Your task to perform on an android device: Is it going to rain today? Image 0: 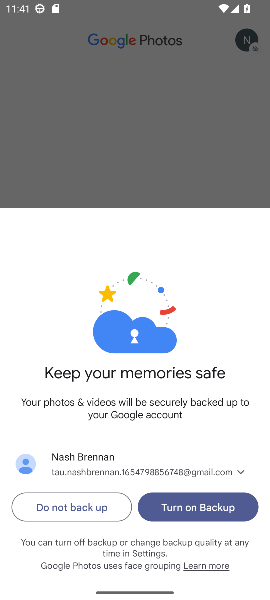
Step 0: press home button
Your task to perform on an android device: Is it going to rain today? Image 1: 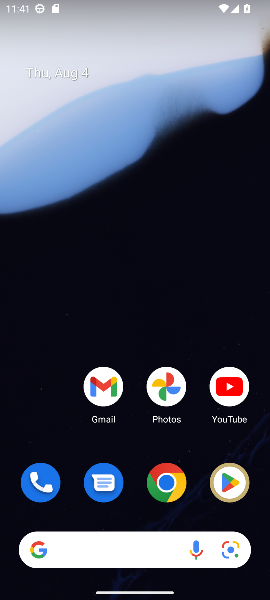
Step 1: drag from (131, 458) to (134, 184)
Your task to perform on an android device: Is it going to rain today? Image 2: 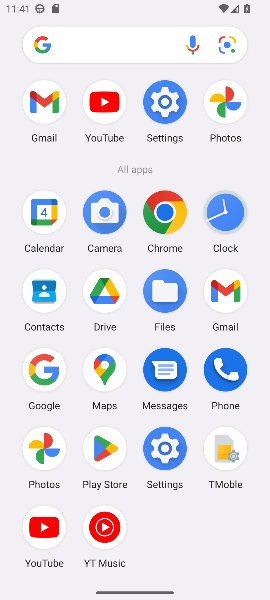
Step 2: click (37, 384)
Your task to perform on an android device: Is it going to rain today? Image 3: 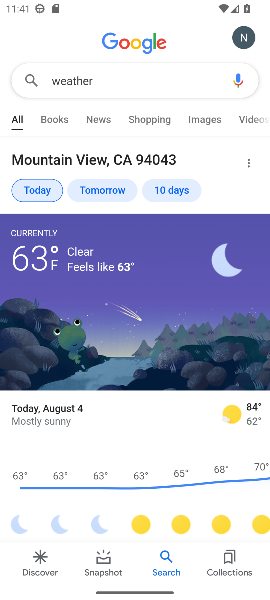
Step 3: task complete